Your task to perform on an android device: Go to Yahoo.com Image 0: 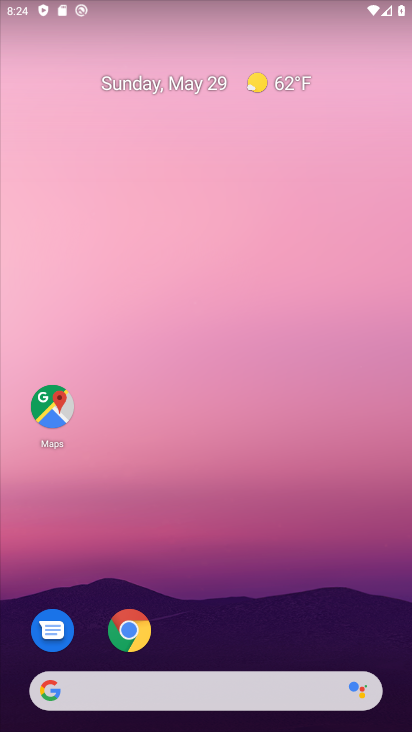
Step 0: click (124, 630)
Your task to perform on an android device: Go to Yahoo.com Image 1: 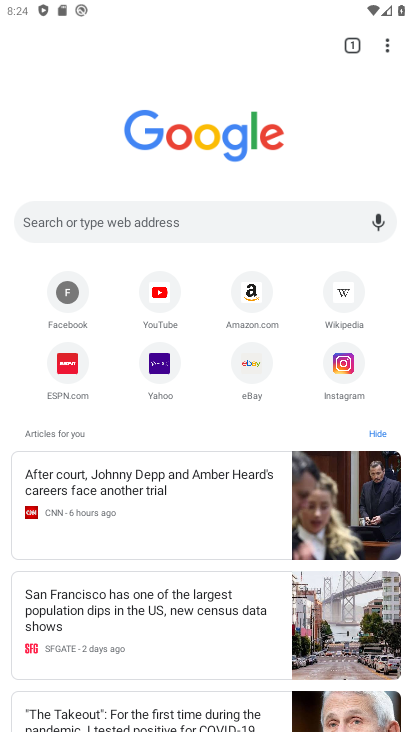
Step 1: click (385, 46)
Your task to perform on an android device: Go to Yahoo.com Image 2: 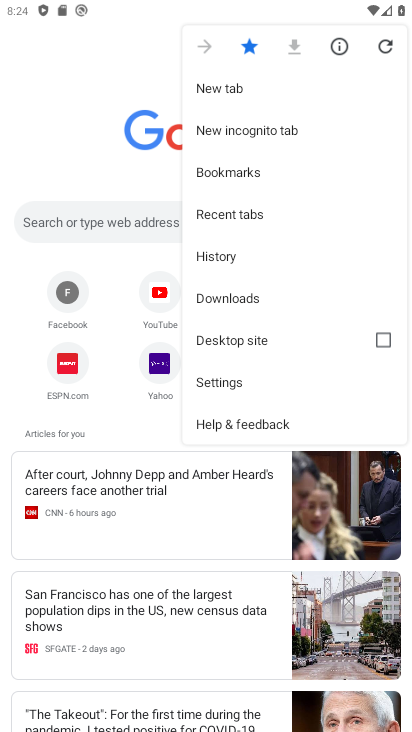
Step 2: click (104, 191)
Your task to perform on an android device: Go to Yahoo.com Image 3: 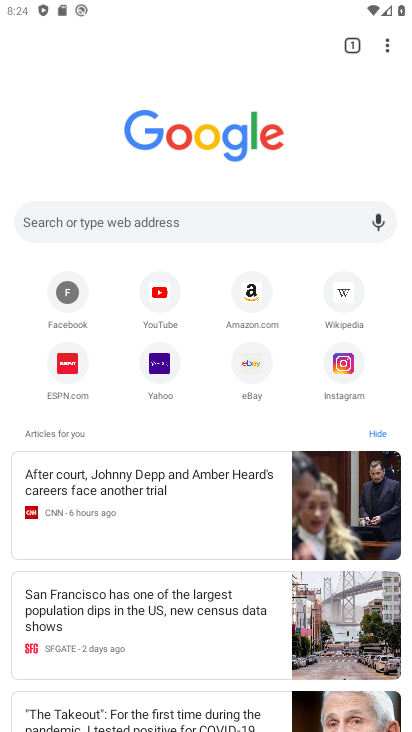
Step 3: click (97, 219)
Your task to perform on an android device: Go to Yahoo.com Image 4: 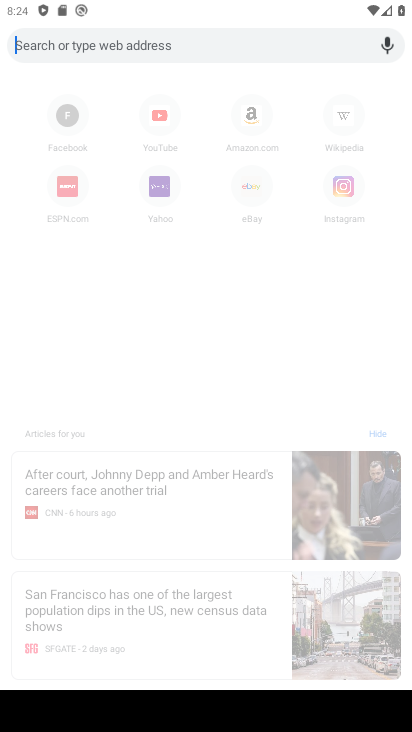
Step 4: type "Yahoo.com"
Your task to perform on an android device: Go to Yahoo.com Image 5: 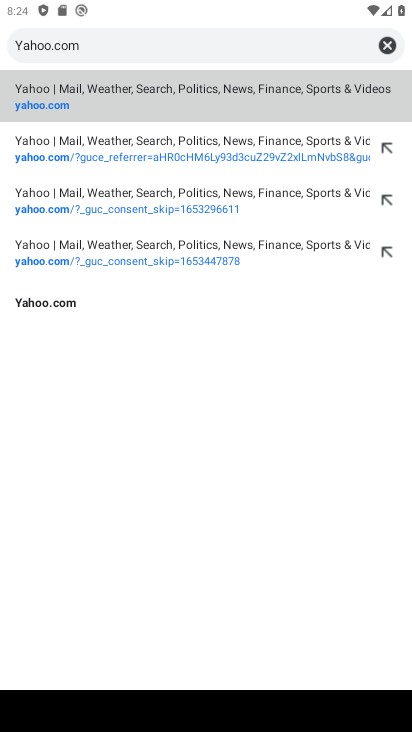
Step 5: click (41, 300)
Your task to perform on an android device: Go to Yahoo.com Image 6: 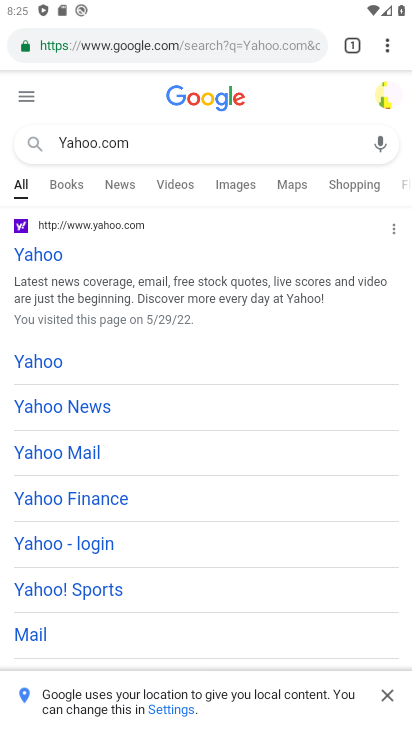
Step 6: task complete